Your task to perform on an android device: Show me recent news Image 0: 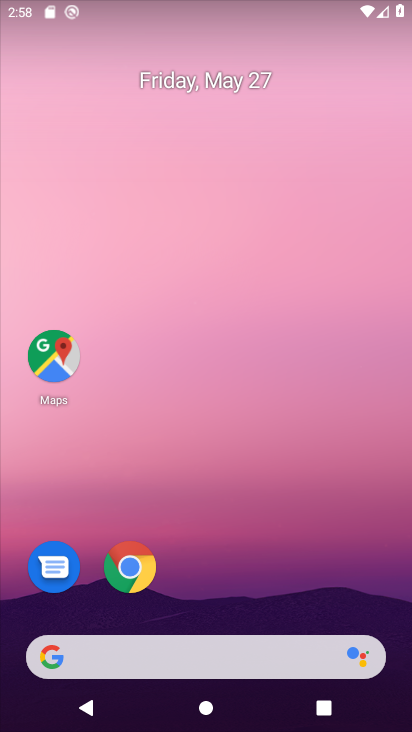
Step 0: drag from (243, 545) to (300, 94)
Your task to perform on an android device: Show me recent news Image 1: 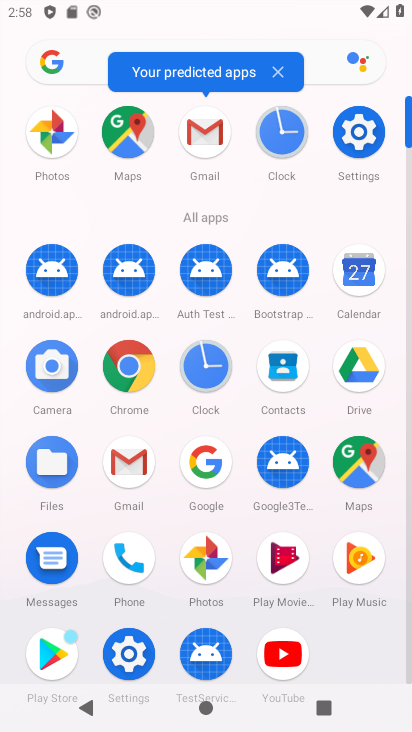
Step 1: click (93, 65)
Your task to perform on an android device: Show me recent news Image 2: 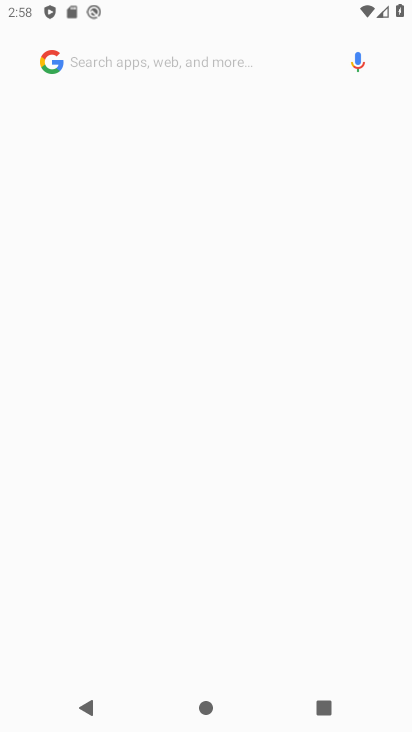
Step 2: click (171, 61)
Your task to perform on an android device: Show me recent news Image 3: 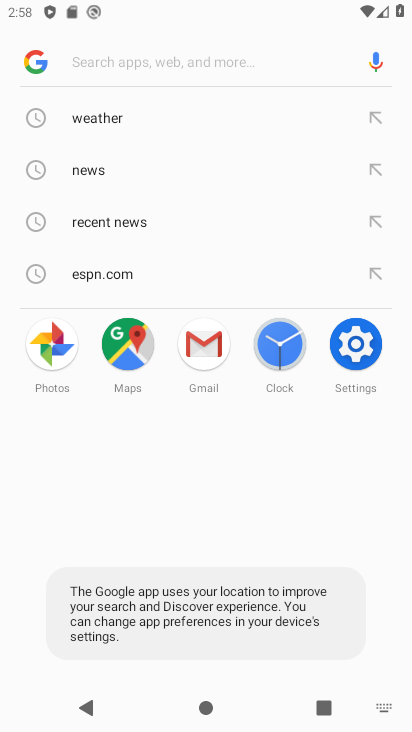
Step 3: click (129, 211)
Your task to perform on an android device: Show me recent news Image 4: 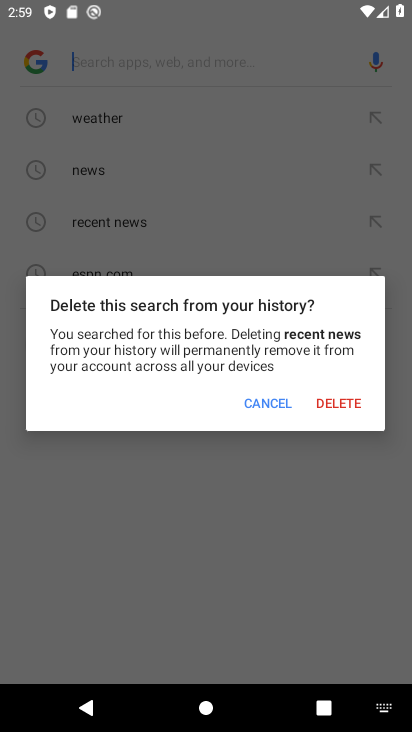
Step 4: click (345, 404)
Your task to perform on an android device: Show me recent news Image 5: 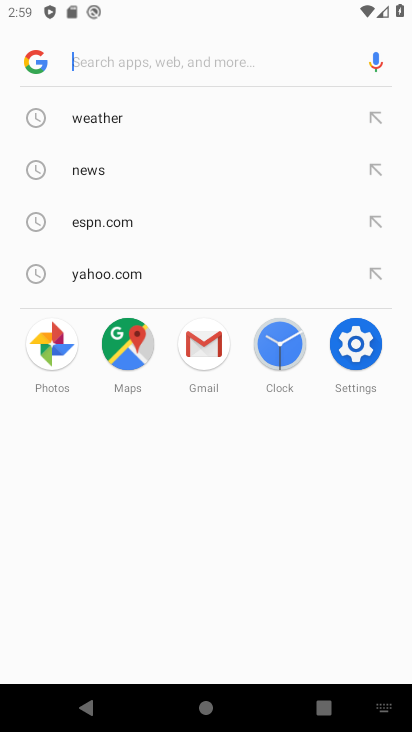
Step 5: click (104, 37)
Your task to perform on an android device: Show me recent news Image 6: 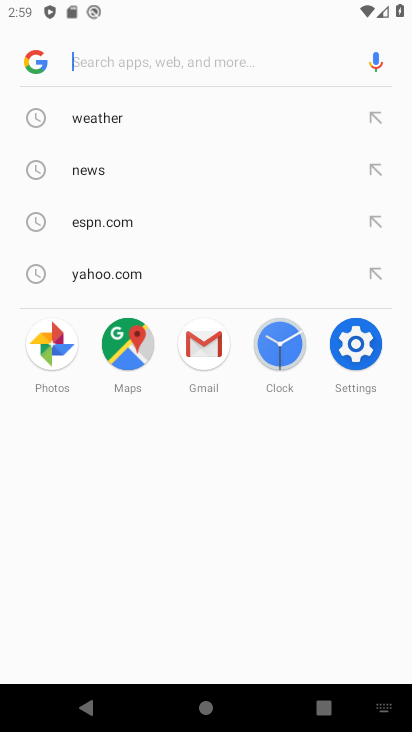
Step 6: click (104, 63)
Your task to perform on an android device: Show me recent news Image 7: 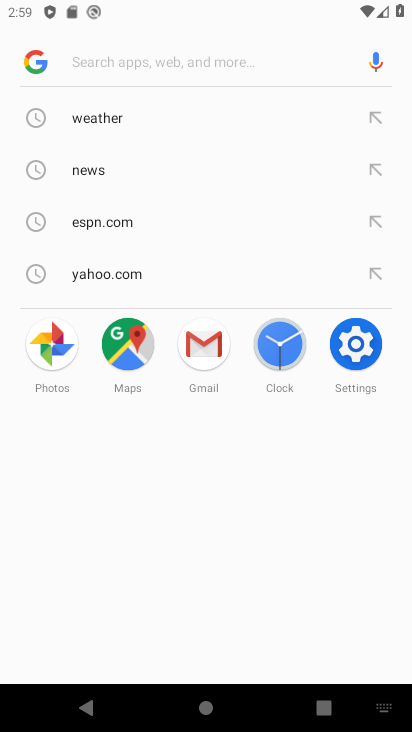
Step 7: type "recent news"
Your task to perform on an android device: Show me recent news Image 8: 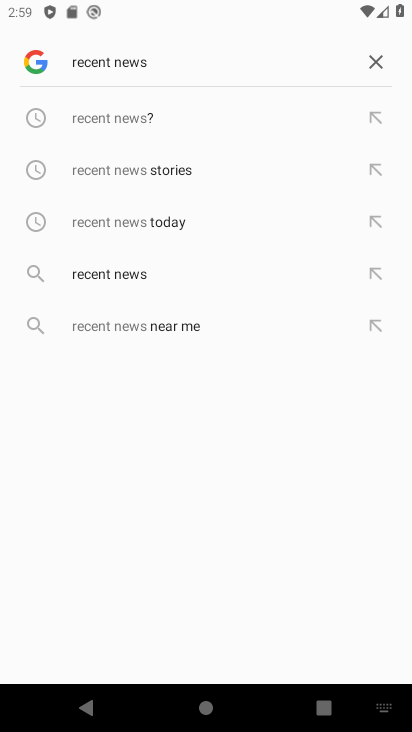
Step 8: click (139, 110)
Your task to perform on an android device: Show me recent news Image 9: 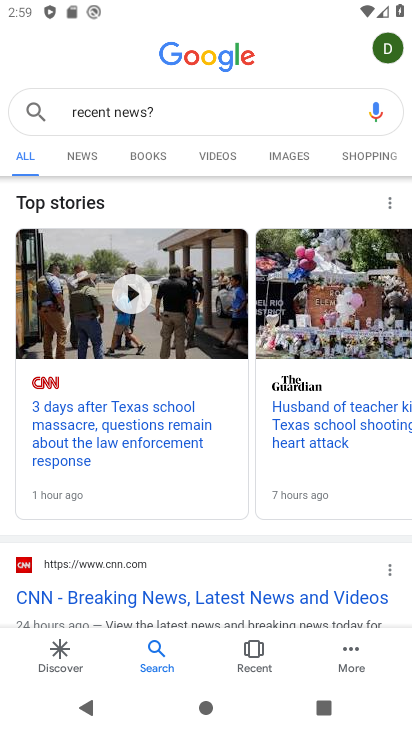
Step 9: task complete